Your task to perform on an android device: Open Google Chrome and click the shortcut for Amazon.com Image 0: 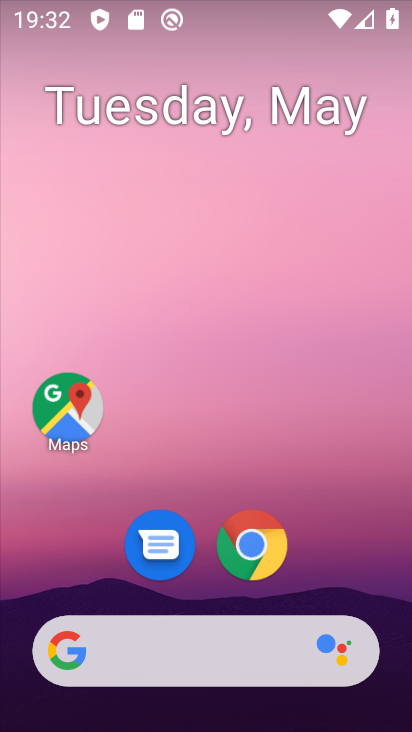
Step 0: click (268, 546)
Your task to perform on an android device: Open Google Chrome and click the shortcut for Amazon.com Image 1: 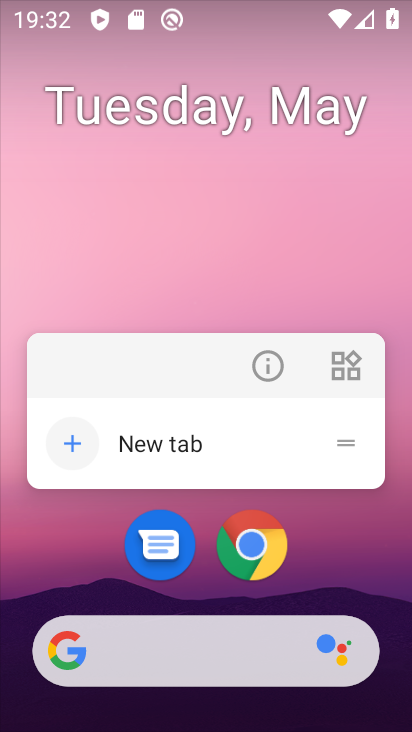
Step 1: click (267, 546)
Your task to perform on an android device: Open Google Chrome and click the shortcut for Amazon.com Image 2: 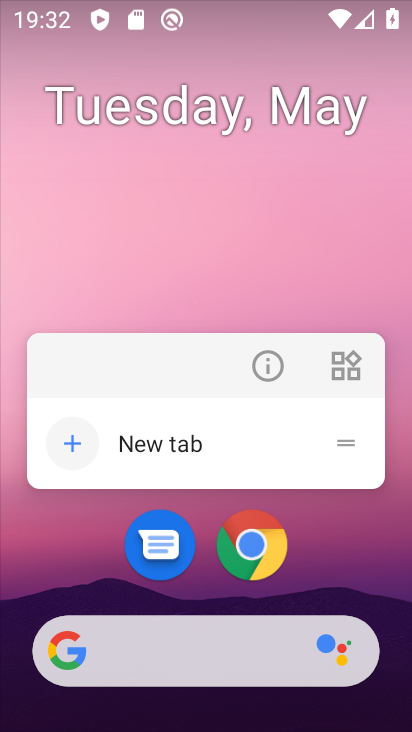
Step 2: click (267, 546)
Your task to perform on an android device: Open Google Chrome and click the shortcut for Amazon.com Image 3: 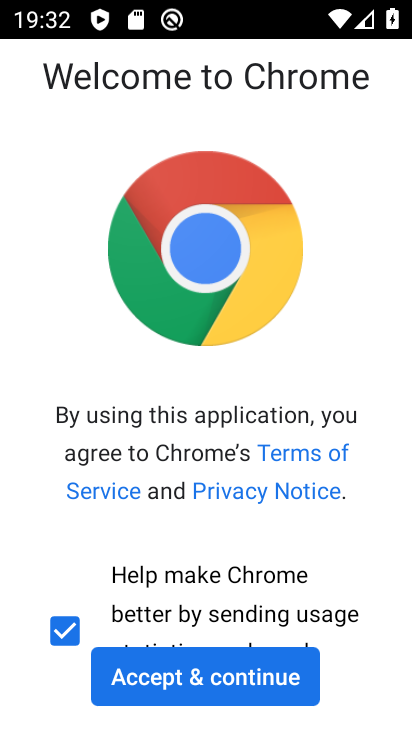
Step 3: click (263, 698)
Your task to perform on an android device: Open Google Chrome and click the shortcut for Amazon.com Image 4: 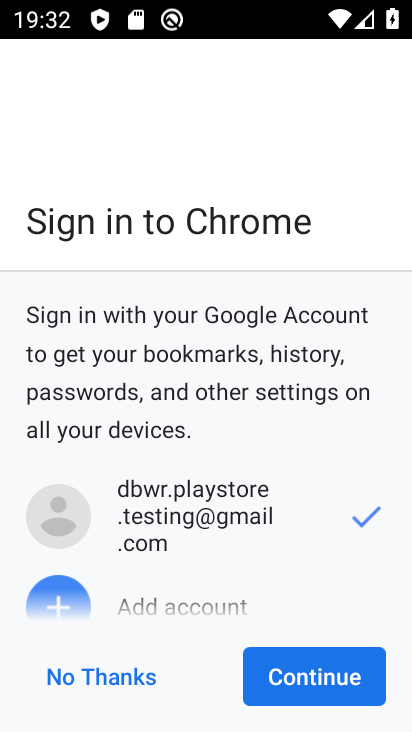
Step 4: click (279, 687)
Your task to perform on an android device: Open Google Chrome and click the shortcut for Amazon.com Image 5: 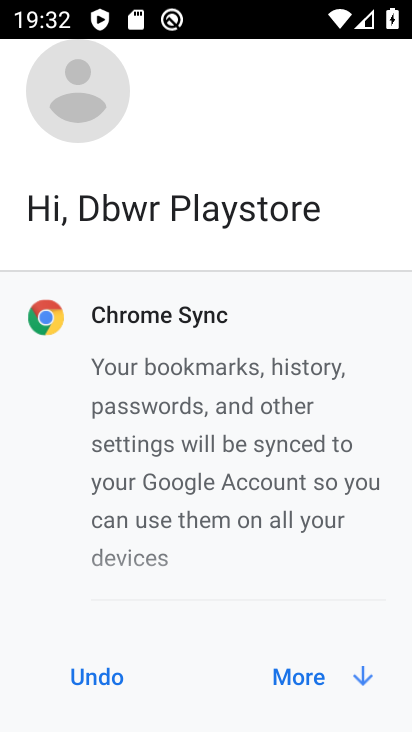
Step 5: click (280, 670)
Your task to perform on an android device: Open Google Chrome and click the shortcut for Amazon.com Image 6: 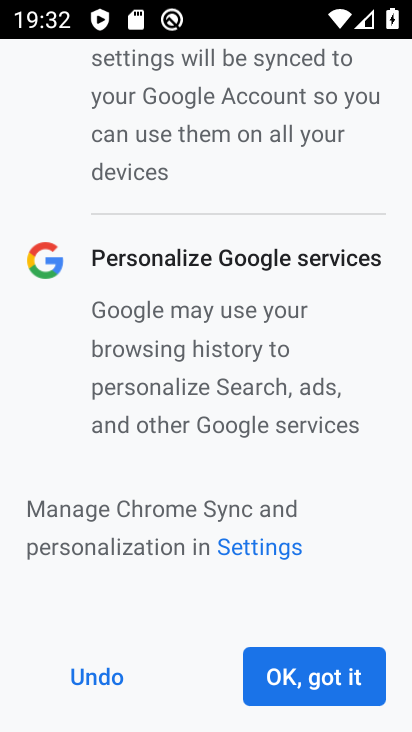
Step 6: click (279, 671)
Your task to perform on an android device: Open Google Chrome and click the shortcut for Amazon.com Image 7: 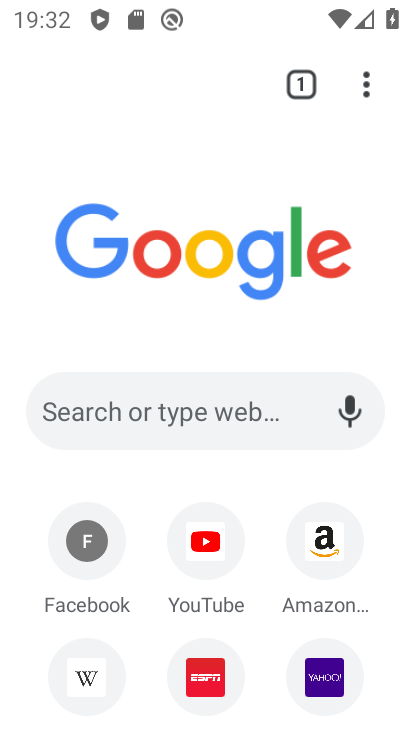
Step 7: click (342, 549)
Your task to perform on an android device: Open Google Chrome and click the shortcut for Amazon.com Image 8: 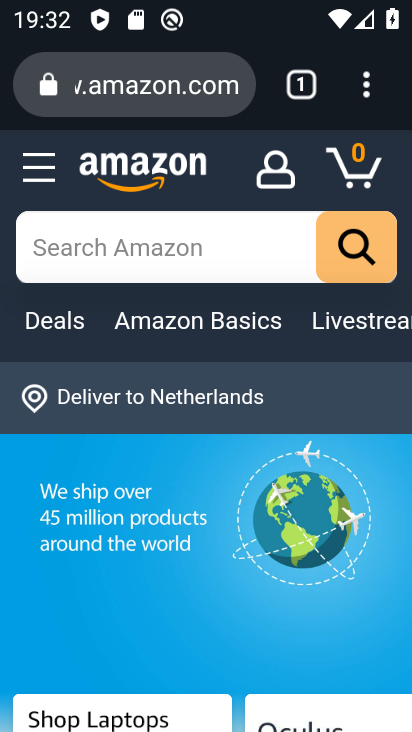
Step 8: task complete